Your task to perform on an android device: Go to location settings Image 0: 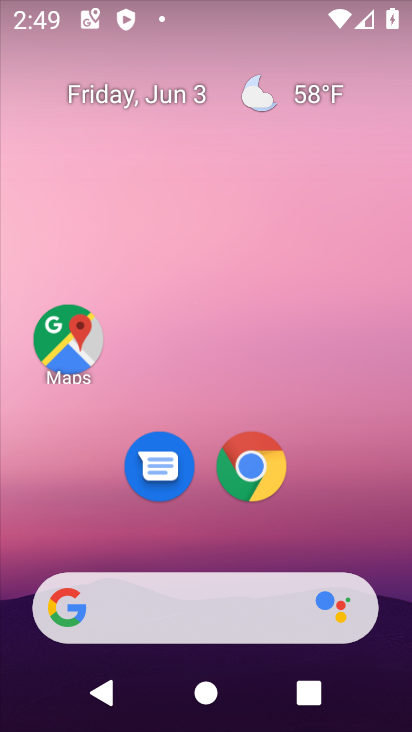
Step 0: click (331, 494)
Your task to perform on an android device: Go to location settings Image 1: 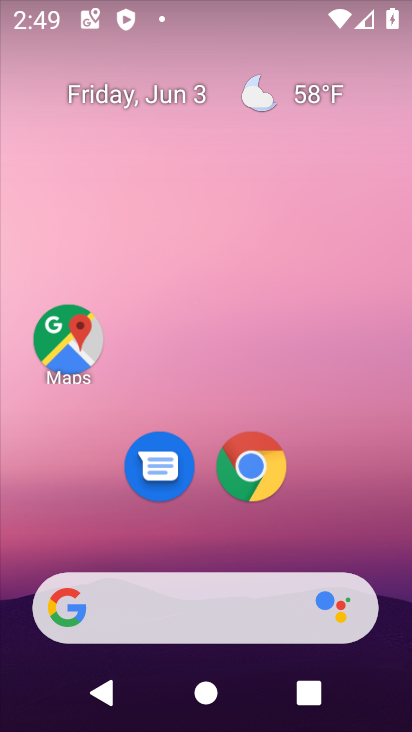
Step 1: drag from (331, 494) to (326, 290)
Your task to perform on an android device: Go to location settings Image 2: 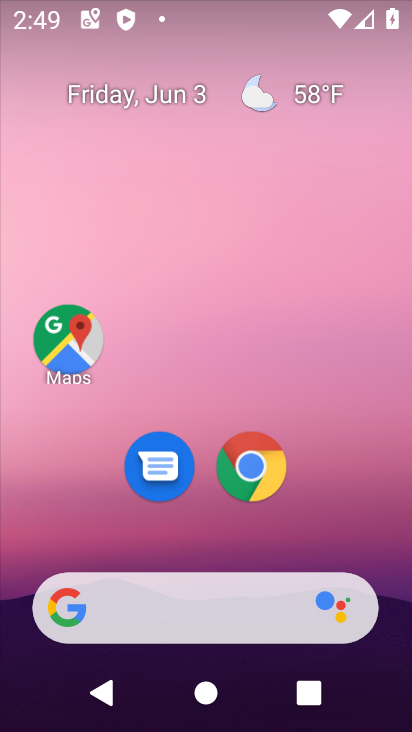
Step 2: click (326, 288)
Your task to perform on an android device: Go to location settings Image 3: 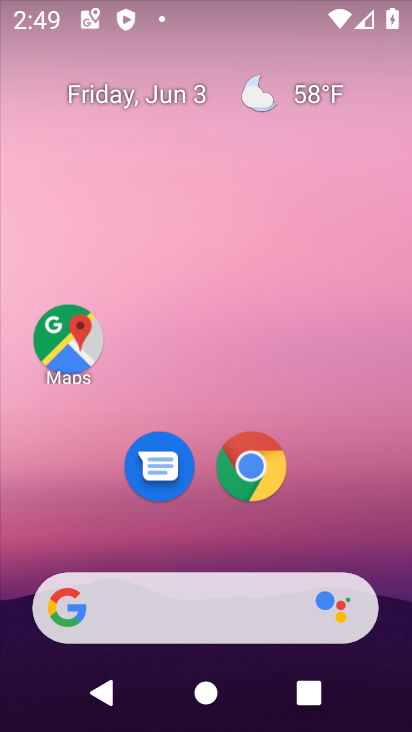
Step 3: drag from (358, 525) to (371, 214)
Your task to perform on an android device: Go to location settings Image 4: 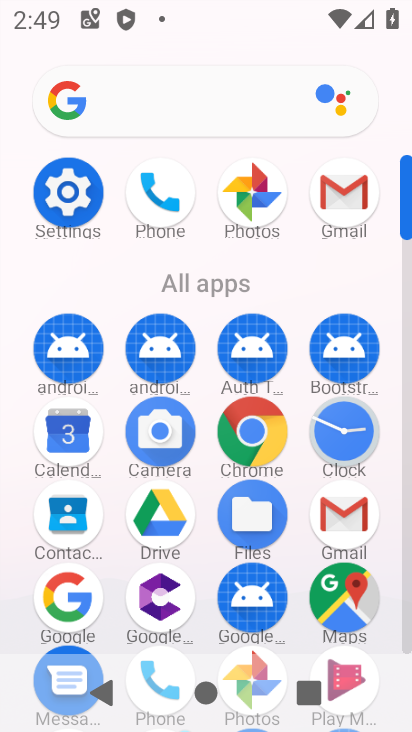
Step 4: click (39, 196)
Your task to perform on an android device: Go to location settings Image 5: 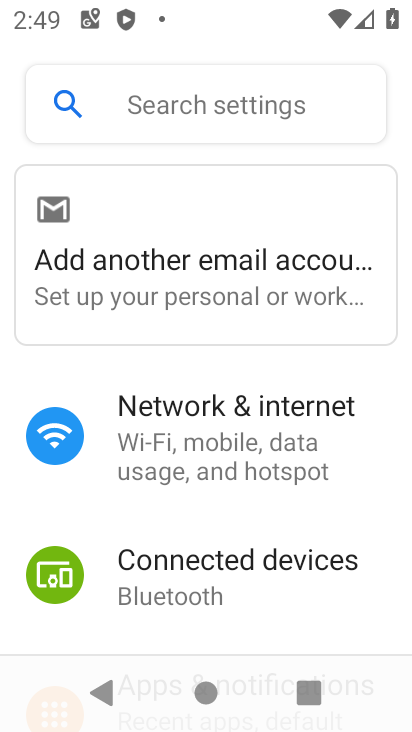
Step 5: drag from (287, 412) to (265, 217)
Your task to perform on an android device: Go to location settings Image 6: 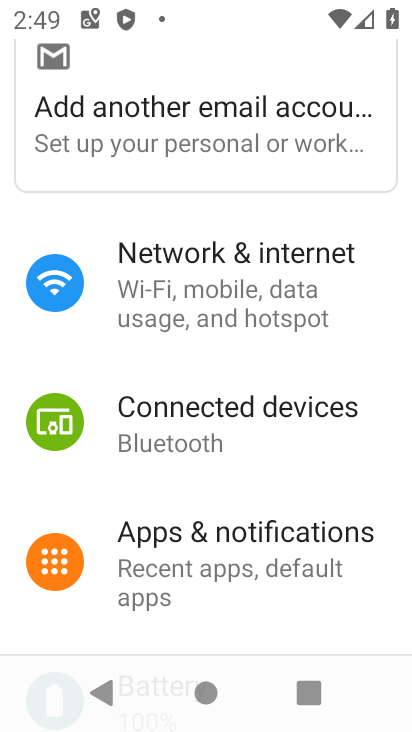
Step 6: drag from (298, 499) to (299, 267)
Your task to perform on an android device: Go to location settings Image 7: 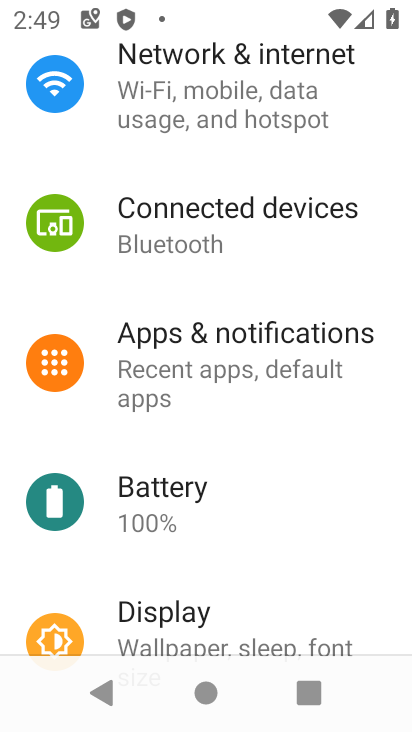
Step 7: drag from (295, 566) to (309, 254)
Your task to perform on an android device: Go to location settings Image 8: 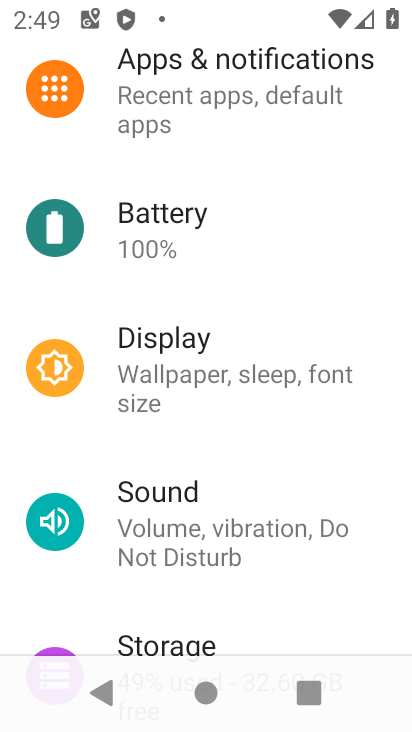
Step 8: drag from (258, 577) to (295, 318)
Your task to perform on an android device: Go to location settings Image 9: 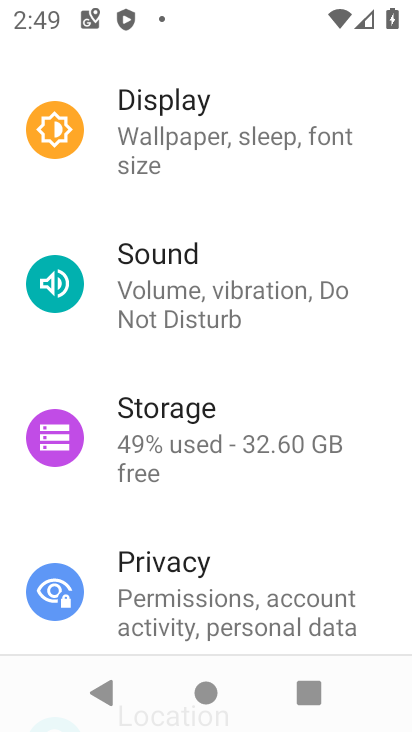
Step 9: drag from (300, 554) to (325, 159)
Your task to perform on an android device: Go to location settings Image 10: 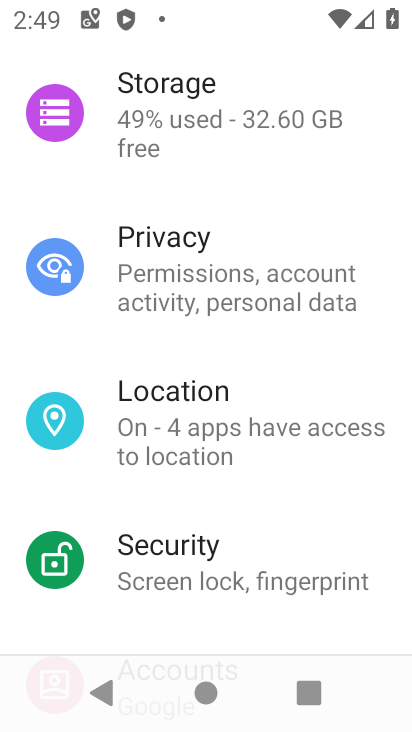
Step 10: click (304, 428)
Your task to perform on an android device: Go to location settings Image 11: 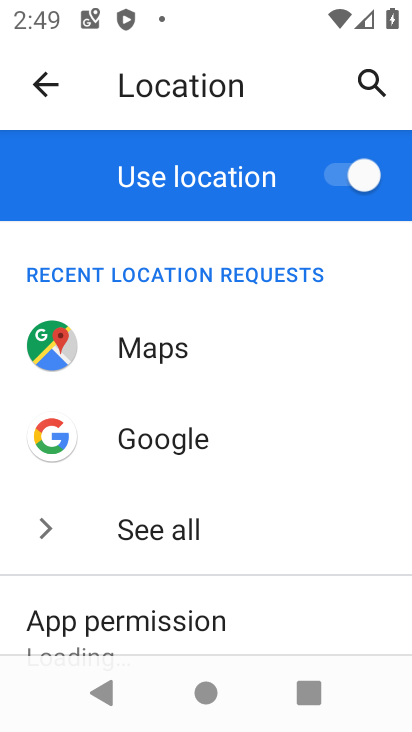
Step 11: task complete